Your task to perform on an android device: Play the last video I watched on Youtube Image 0: 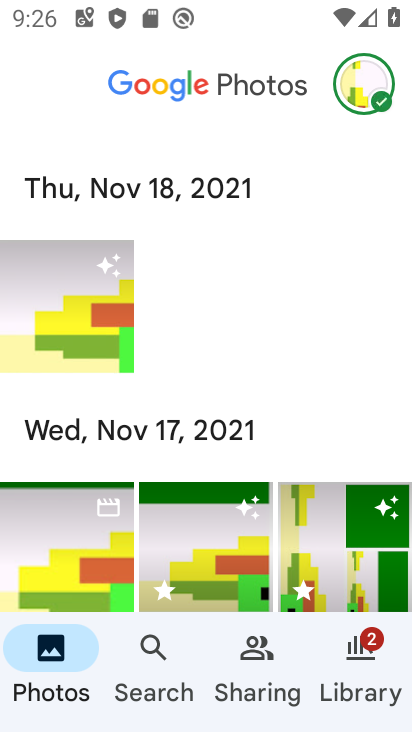
Step 0: press home button
Your task to perform on an android device: Play the last video I watched on Youtube Image 1: 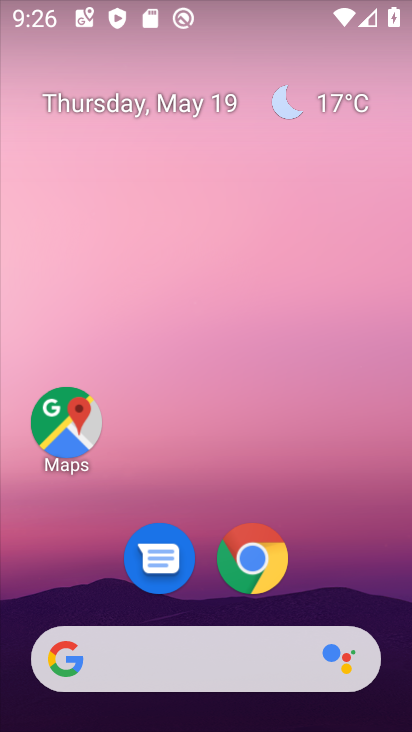
Step 1: drag from (187, 723) to (187, 207)
Your task to perform on an android device: Play the last video I watched on Youtube Image 2: 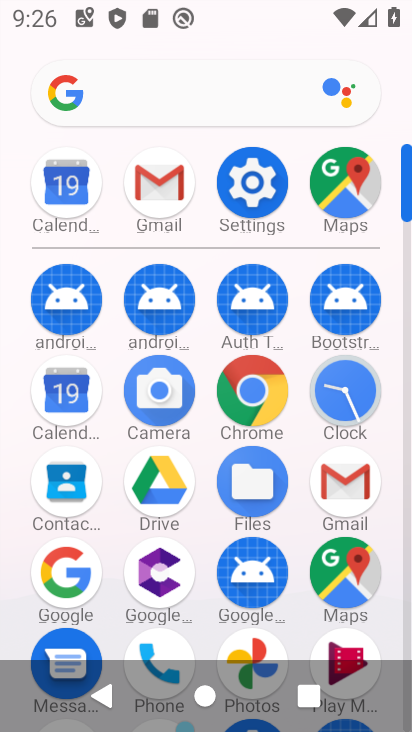
Step 2: drag from (290, 638) to (291, 255)
Your task to perform on an android device: Play the last video I watched on Youtube Image 3: 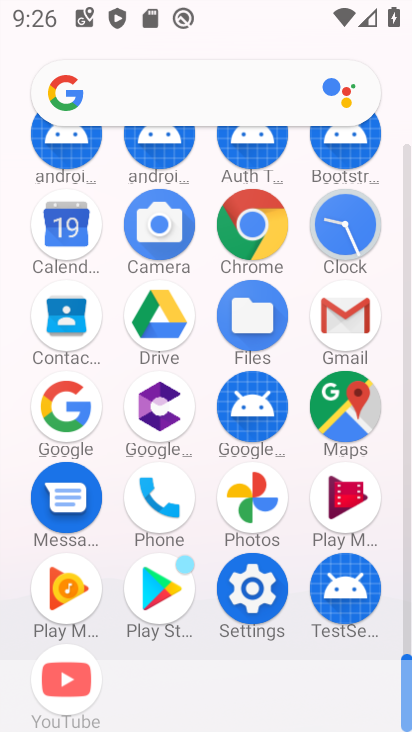
Step 3: click (60, 659)
Your task to perform on an android device: Play the last video I watched on Youtube Image 4: 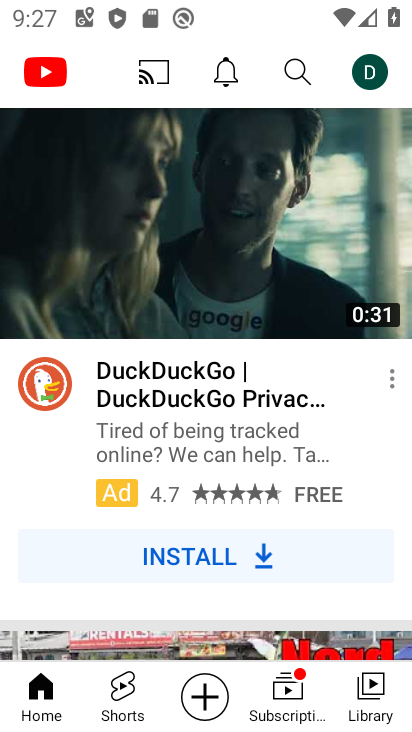
Step 4: click (361, 686)
Your task to perform on an android device: Play the last video I watched on Youtube Image 5: 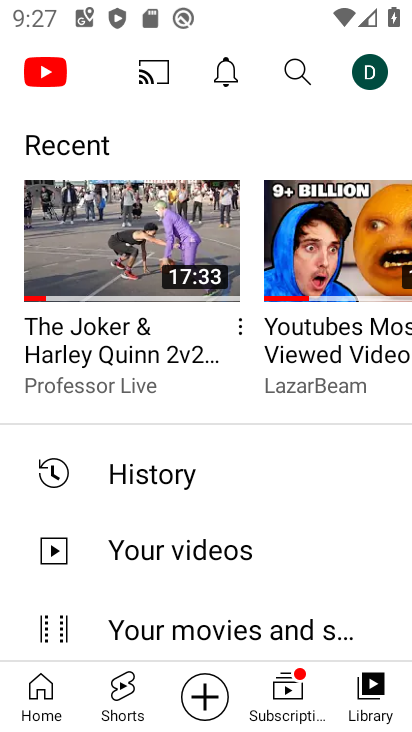
Step 5: click (136, 237)
Your task to perform on an android device: Play the last video I watched on Youtube Image 6: 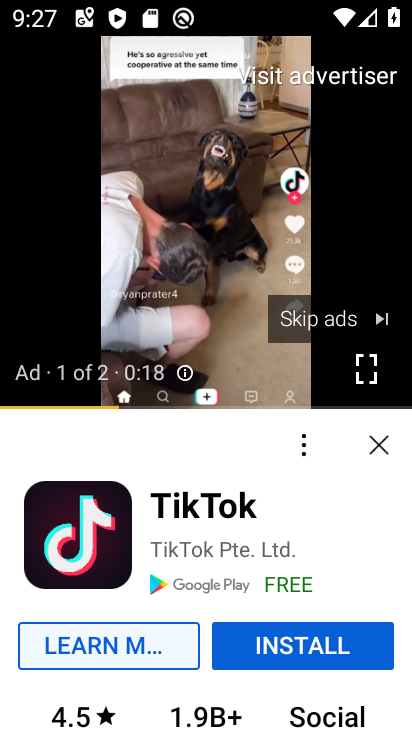
Step 6: click (344, 320)
Your task to perform on an android device: Play the last video I watched on Youtube Image 7: 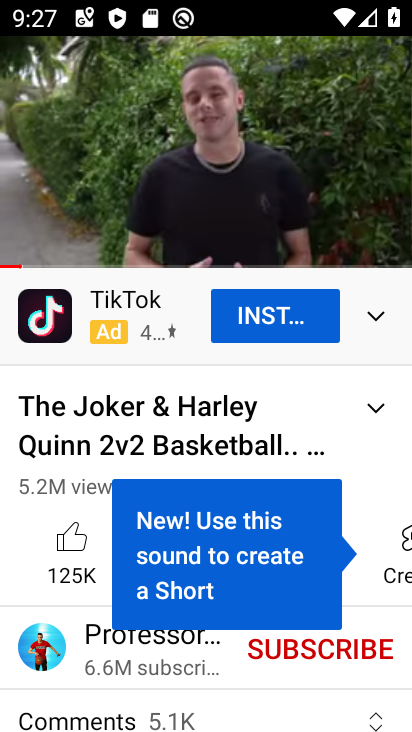
Step 7: task complete